Your task to perform on an android device: Toggle the flashlight Image 0: 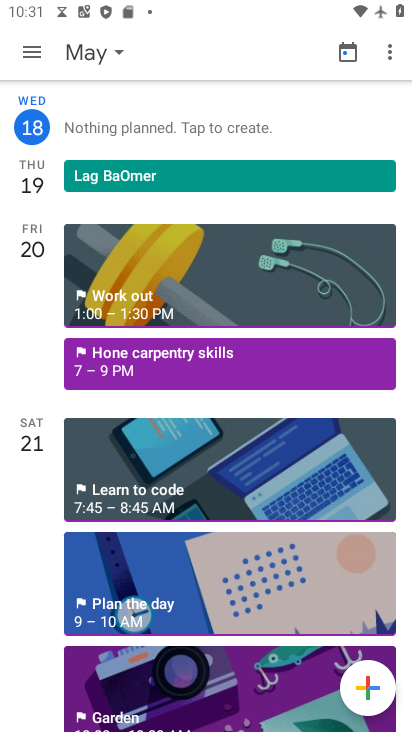
Step 0: press back button
Your task to perform on an android device: Toggle the flashlight Image 1: 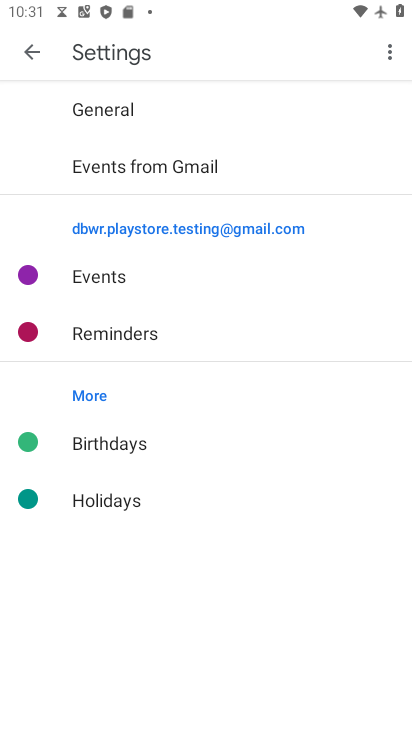
Step 1: press home button
Your task to perform on an android device: Toggle the flashlight Image 2: 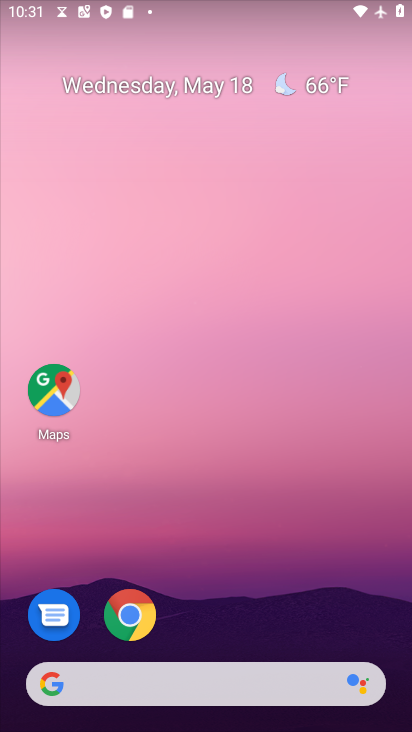
Step 2: drag from (271, 592) to (261, 38)
Your task to perform on an android device: Toggle the flashlight Image 3: 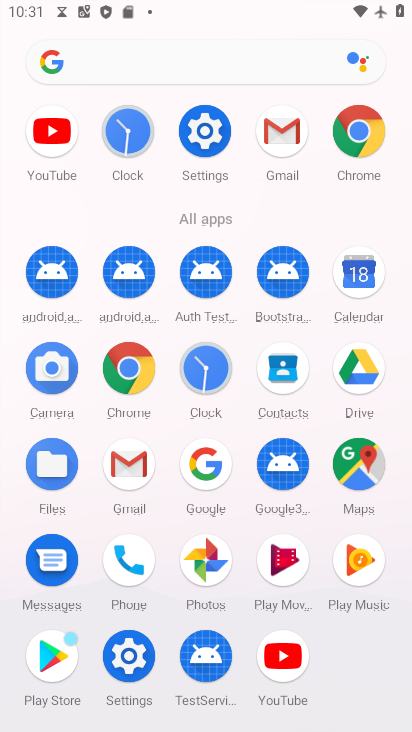
Step 3: drag from (5, 555) to (0, 304)
Your task to perform on an android device: Toggle the flashlight Image 4: 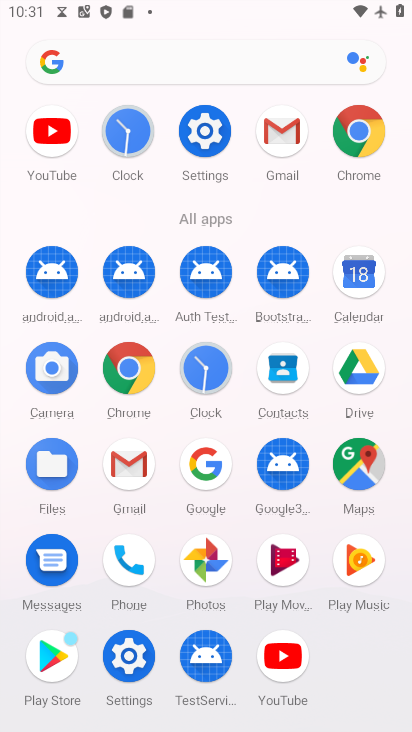
Step 4: click (127, 652)
Your task to perform on an android device: Toggle the flashlight Image 5: 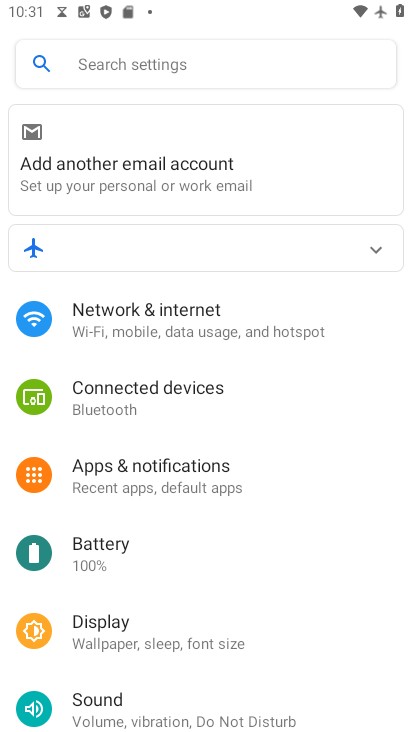
Step 5: click (224, 318)
Your task to perform on an android device: Toggle the flashlight Image 6: 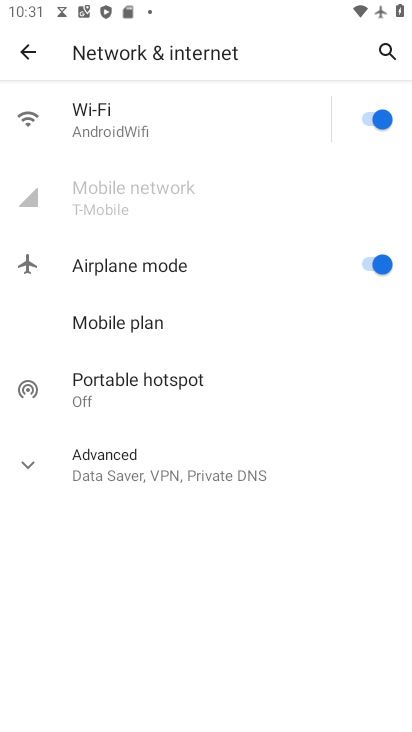
Step 6: click (33, 462)
Your task to perform on an android device: Toggle the flashlight Image 7: 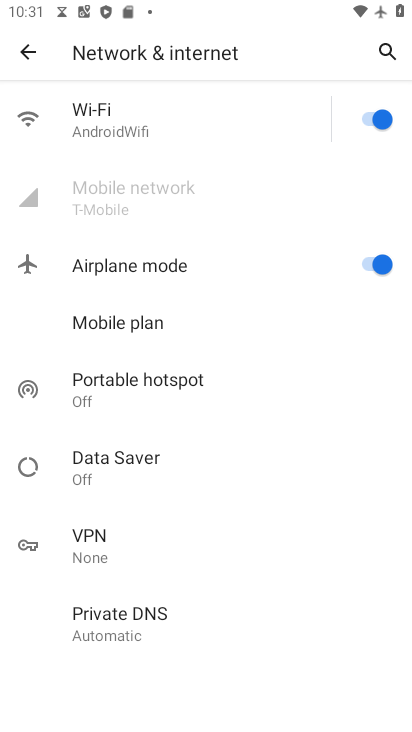
Step 7: task complete